Your task to perform on an android device: Check out the new nike air max 2020. Image 0: 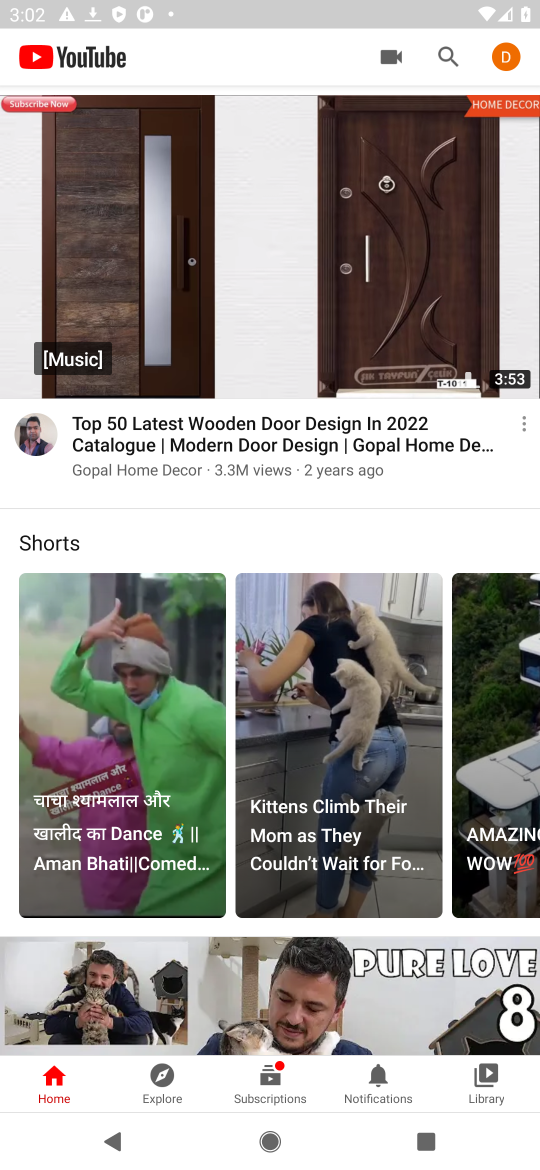
Step 0: press home button
Your task to perform on an android device: Check out the new nike air max 2020. Image 1: 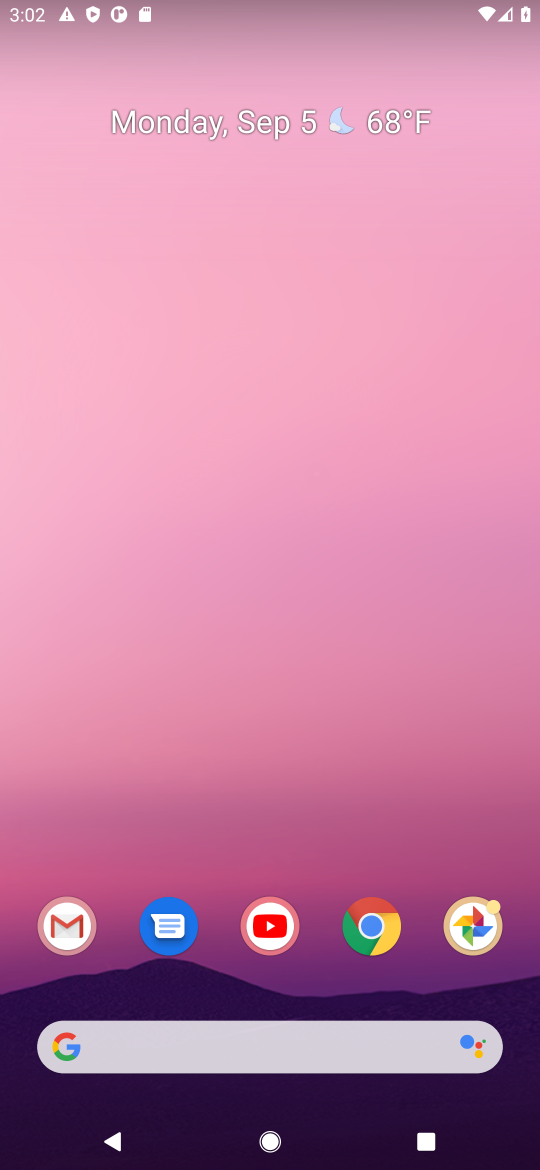
Step 1: click (376, 925)
Your task to perform on an android device: Check out the new nike air max 2020. Image 2: 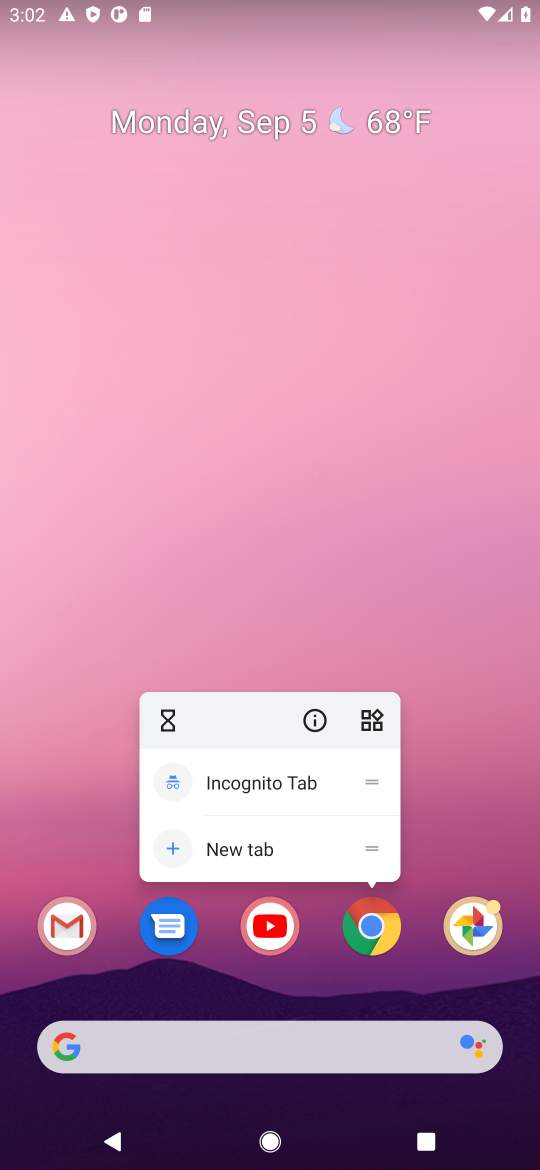
Step 2: click (376, 925)
Your task to perform on an android device: Check out the new nike air max 2020. Image 3: 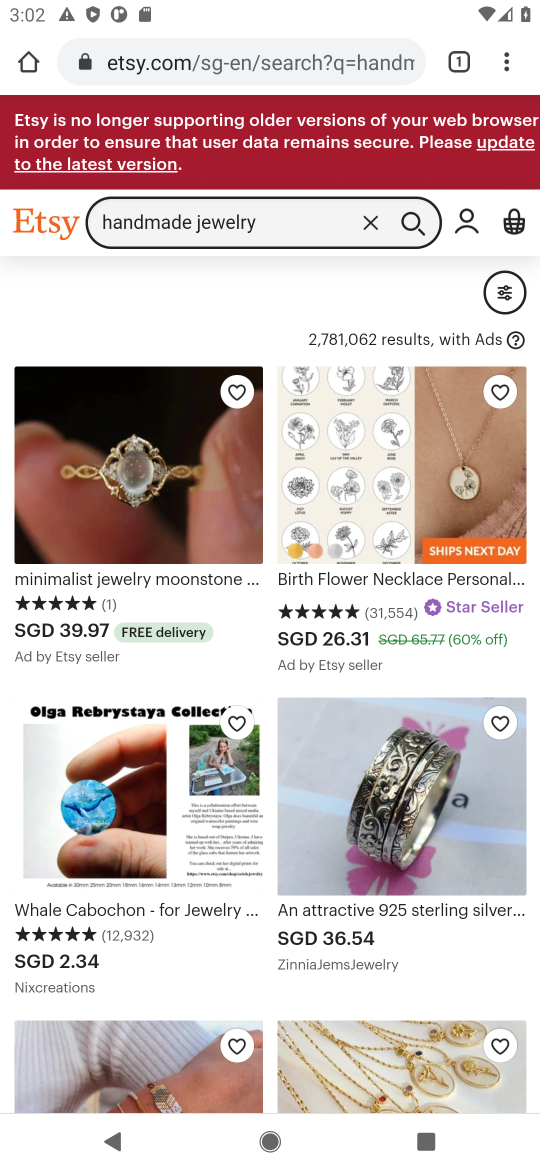
Step 3: click (300, 65)
Your task to perform on an android device: Check out the new nike air max 2020. Image 4: 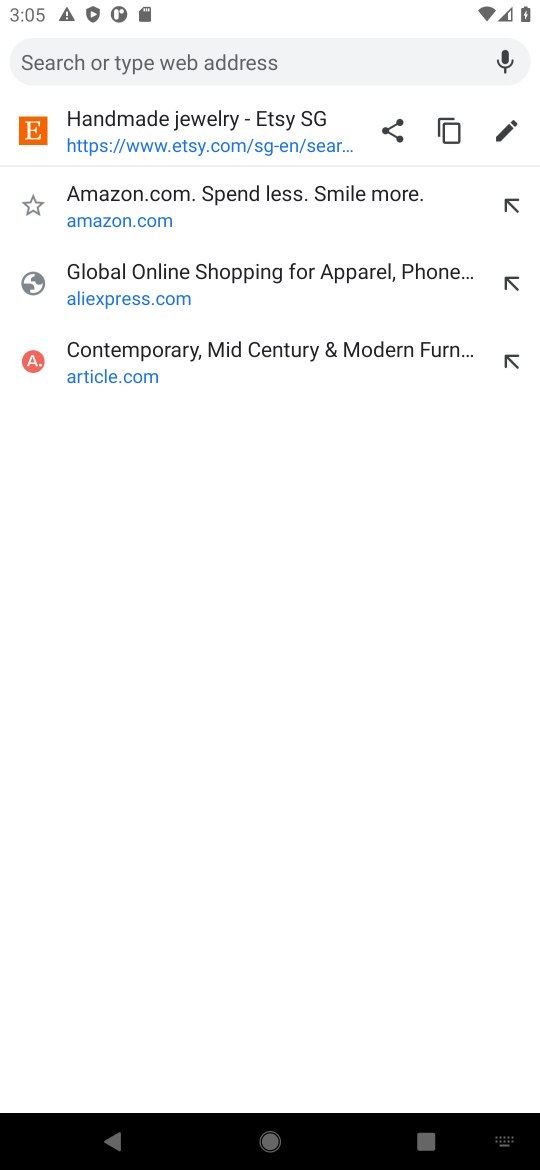
Step 4: type "new nike air max 2020"
Your task to perform on an android device: Check out the new nike air max 2020. Image 5: 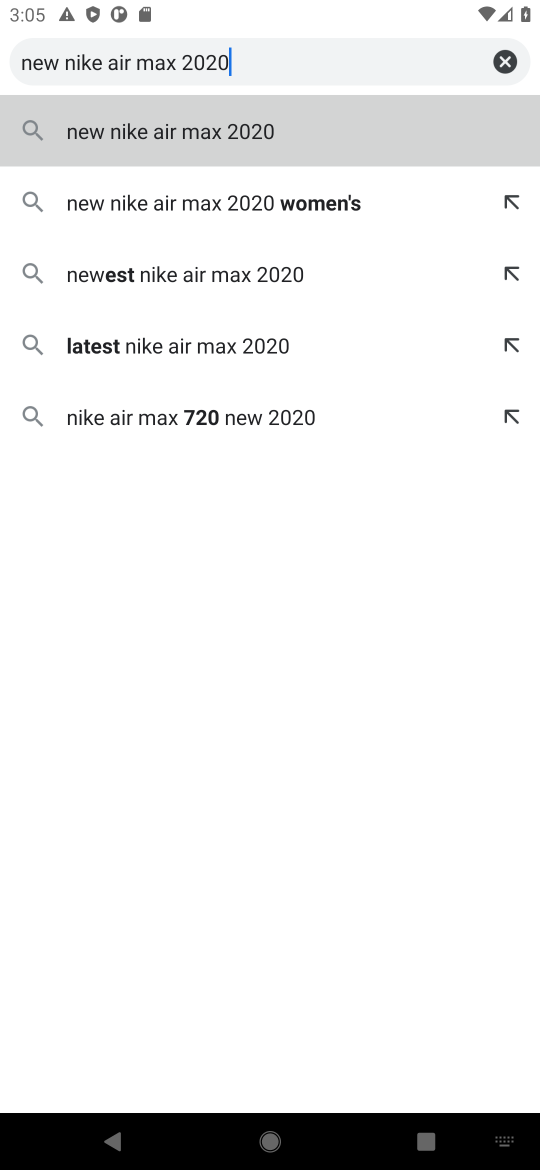
Step 5: click (198, 135)
Your task to perform on an android device: Check out the new nike air max 2020. Image 6: 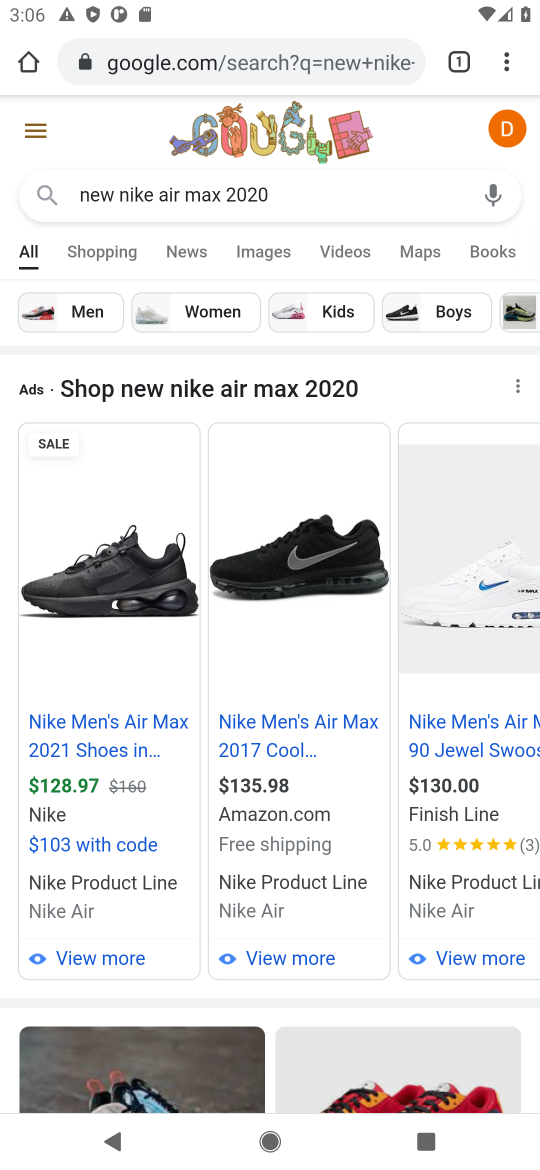
Step 6: task complete